Your task to perform on an android device: change the clock display to analog Image 0: 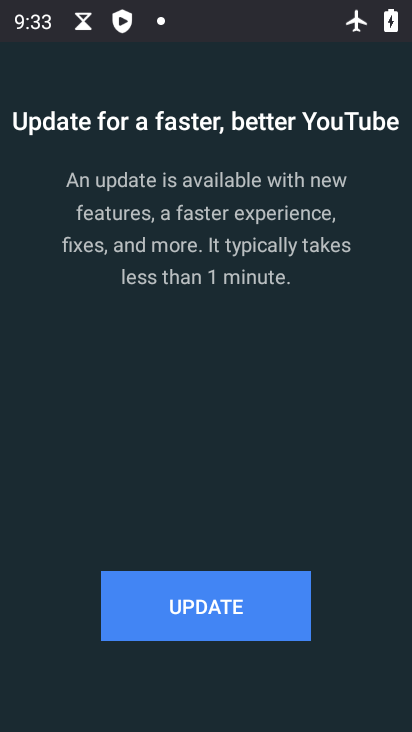
Step 0: press home button
Your task to perform on an android device: change the clock display to analog Image 1: 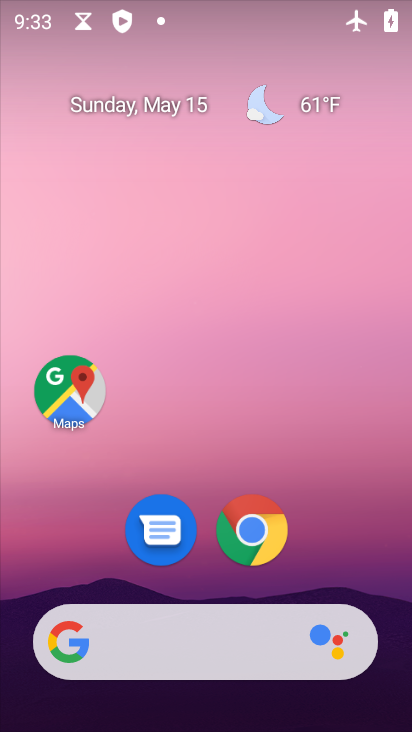
Step 1: drag from (220, 723) to (225, 119)
Your task to perform on an android device: change the clock display to analog Image 2: 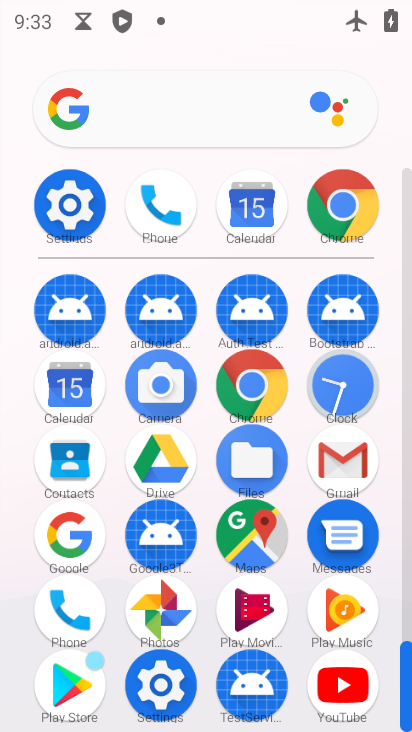
Step 2: click (345, 391)
Your task to perform on an android device: change the clock display to analog Image 3: 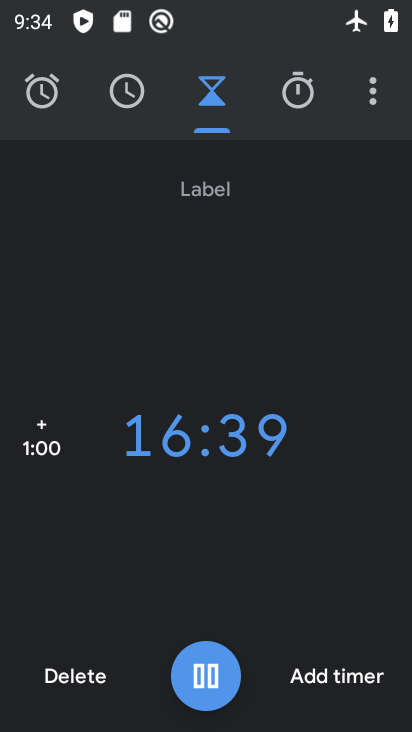
Step 3: click (375, 101)
Your task to perform on an android device: change the clock display to analog Image 4: 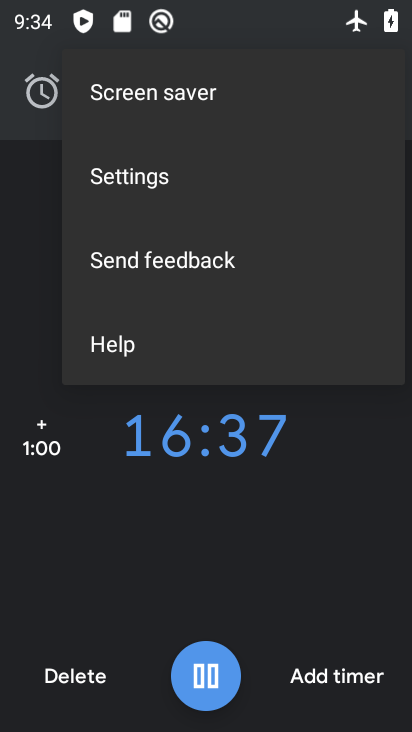
Step 4: click (129, 178)
Your task to perform on an android device: change the clock display to analog Image 5: 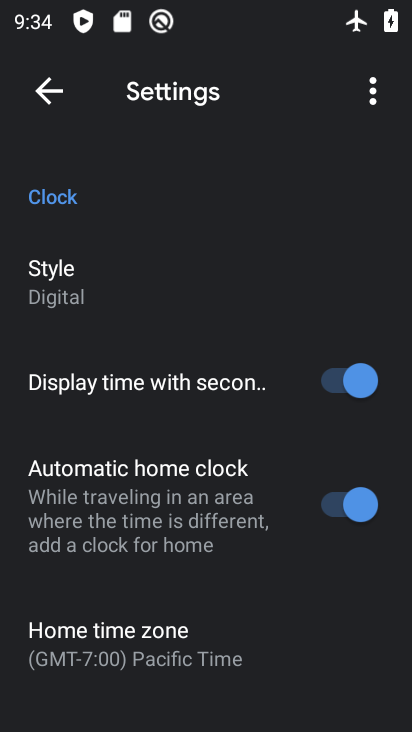
Step 5: click (70, 277)
Your task to perform on an android device: change the clock display to analog Image 6: 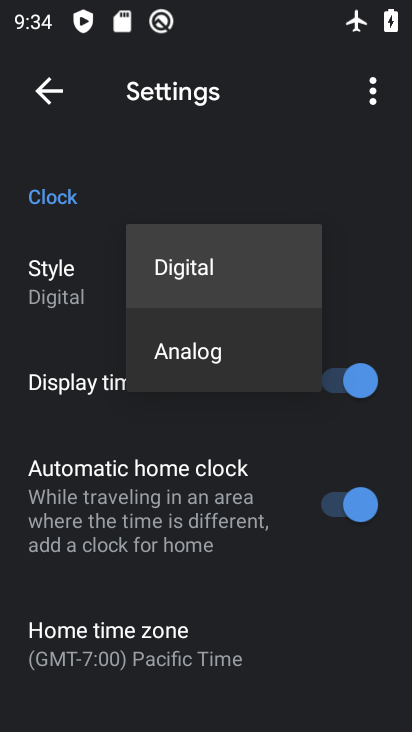
Step 6: click (171, 348)
Your task to perform on an android device: change the clock display to analog Image 7: 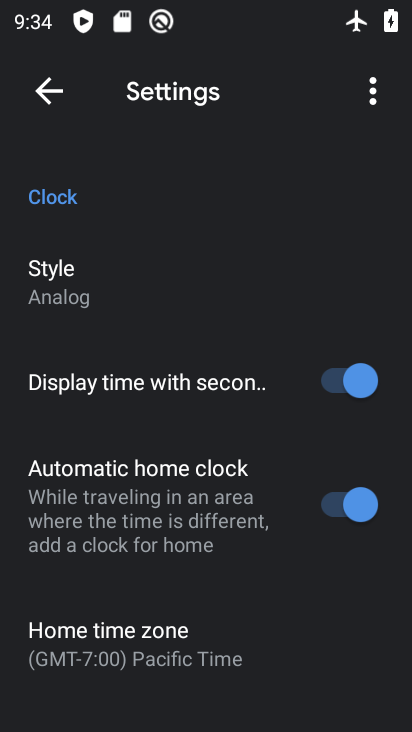
Step 7: task complete